Your task to perform on an android device: clear history in the chrome app Image 0: 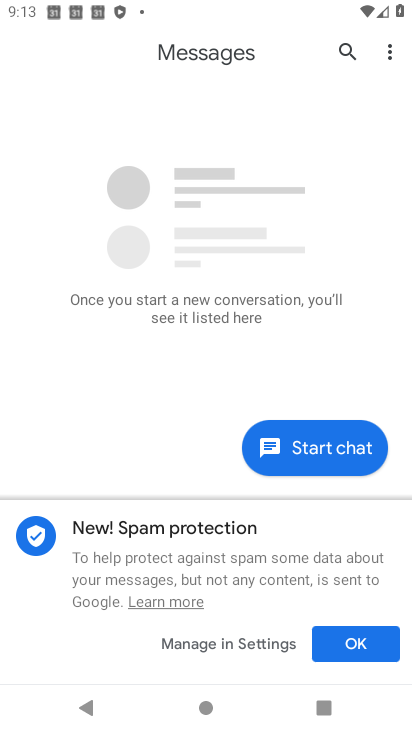
Step 0: press home button
Your task to perform on an android device: clear history in the chrome app Image 1: 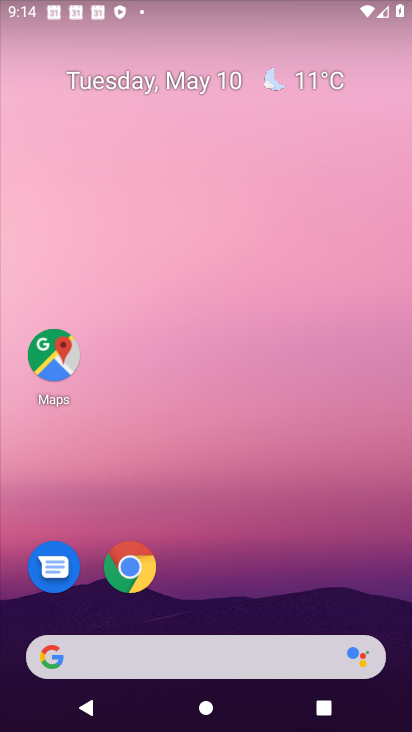
Step 1: click (133, 555)
Your task to perform on an android device: clear history in the chrome app Image 2: 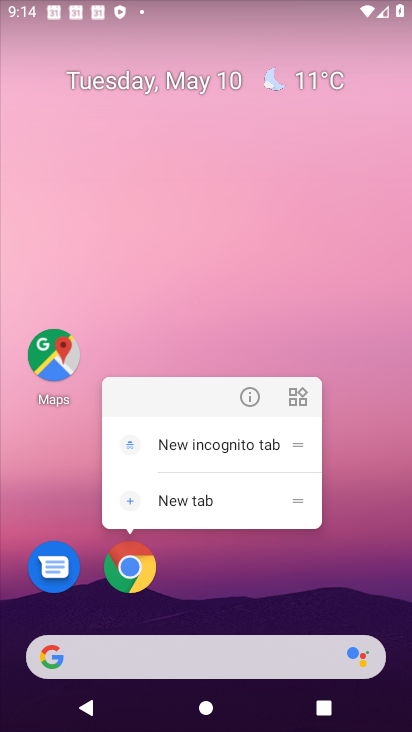
Step 2: click (126, 561)
Your task to perform on an android device: clear history in the chrome app Image 3: 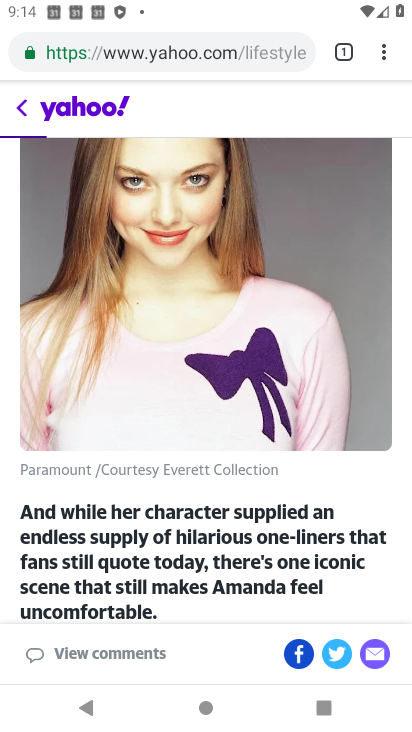
Step 3: click (346, 51)
Your task to perform on an android device: clear history in the chrome app Image 4: 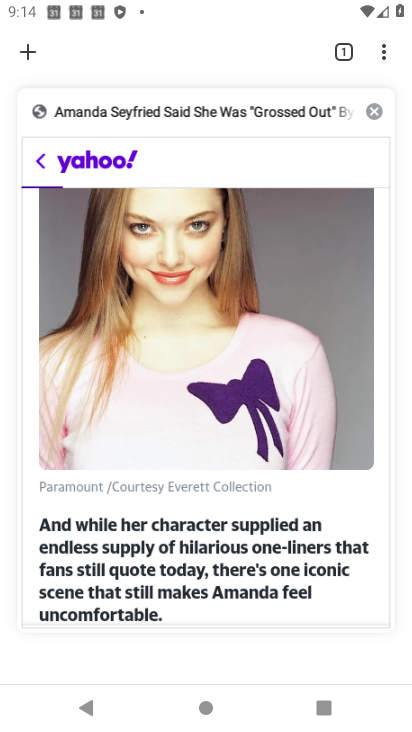
Step 4: click (342, 45)
Your task to perform on an android device: clear history in the chrome app Image 5: 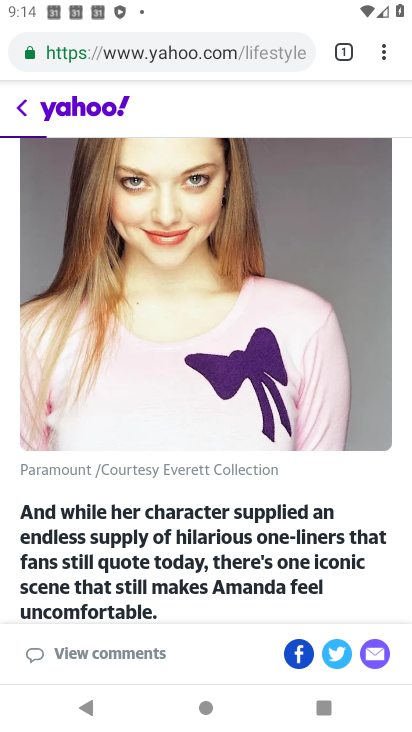
Step 5: click (349, 51)
Your task to perform on an android device: clear history in the chrome app Image 6: 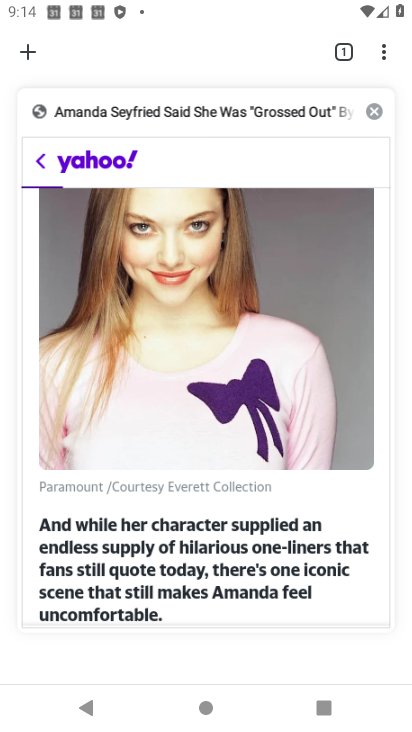
Step 6: click (375, 115)
Your task to perform on an android device: clear history in the chrome app Image 7: 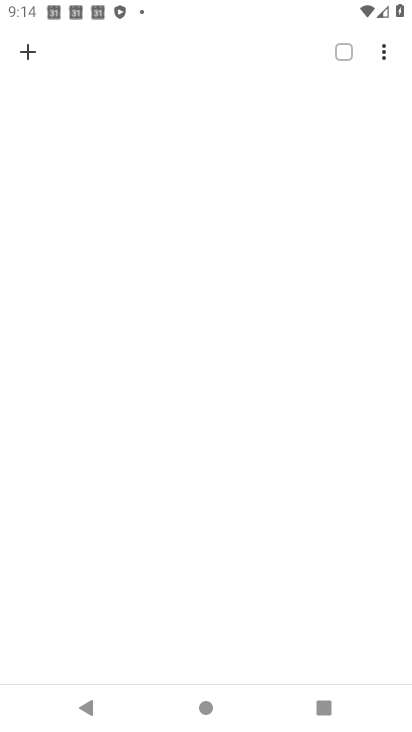
Step 7: click (380, 56)
Your task to perform on an android device: clear history in the chrome app Image 8: 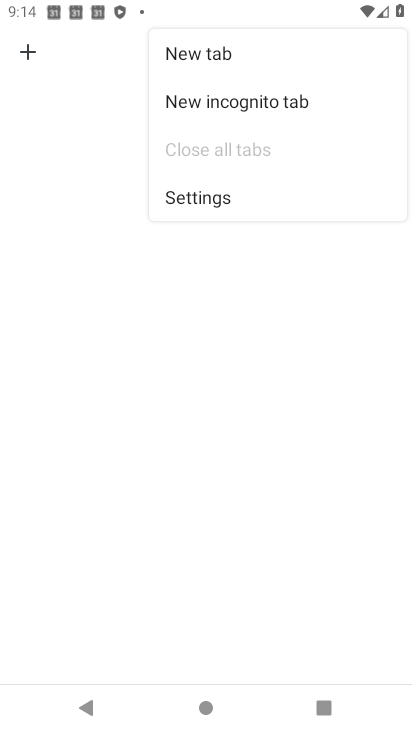
Step 8: click (22, 48)
Your task to perform on an android device: clear history in the chrome app Image 9: 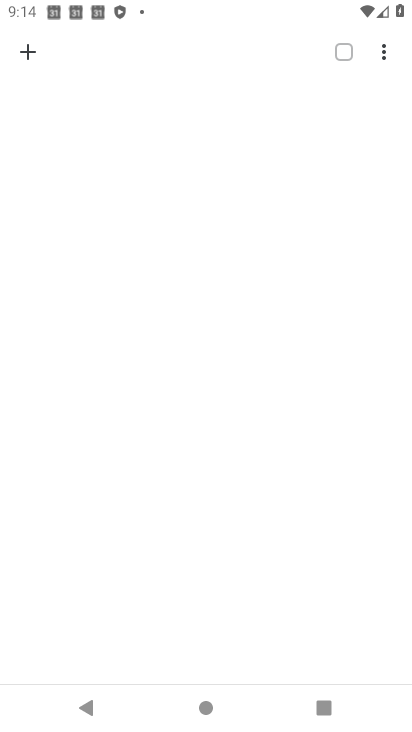
Step 9: click (28, 42)
Your task to perform on an android device: clear history in the chrome app Image 10: 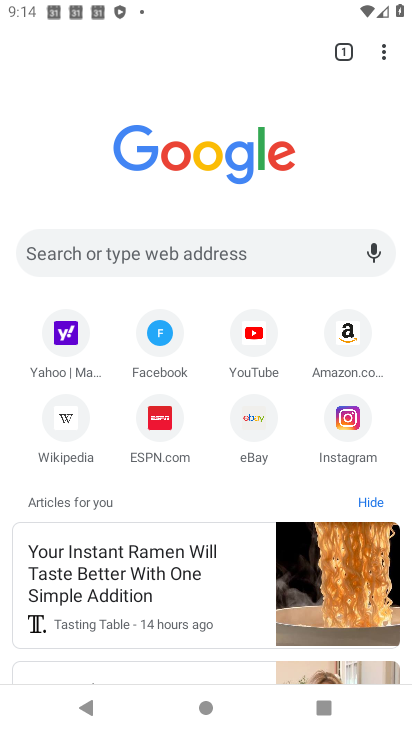
Step 10: click (387, 51)
Your task to perform on an android device: clear history in the chrome app Image 11: 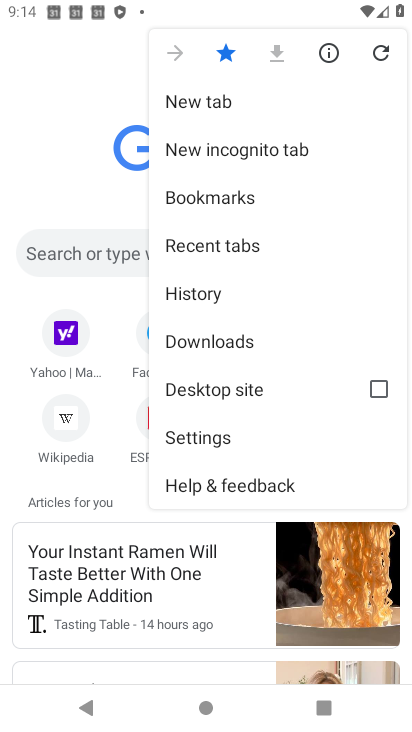
Step 11: click (202, 306)
Your task to perform on an android device: clear history in the chrome app Image 12: 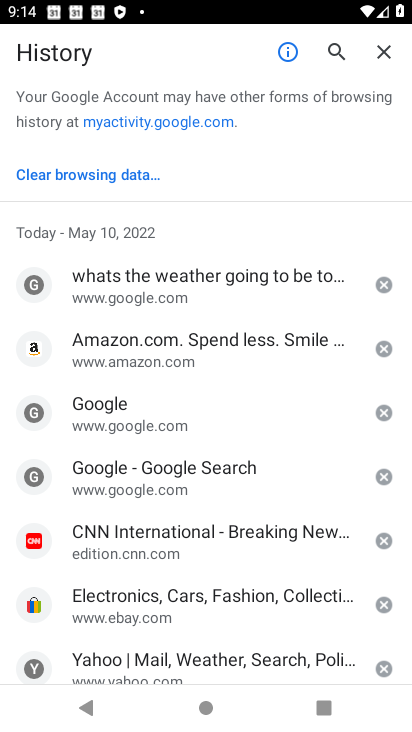
Step 12: click (130, 107)
Your task to perform on an android device: clear history in the chrome app Image 13: 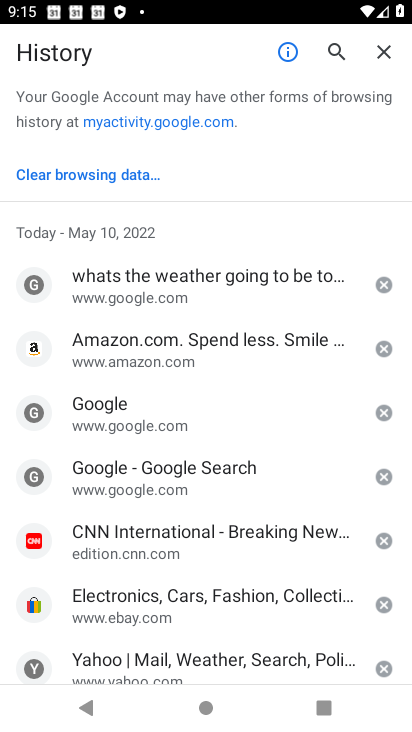
Step 13: click (89, 169)
Your task to perform on an android device: clear history in the chrome app Image 14: 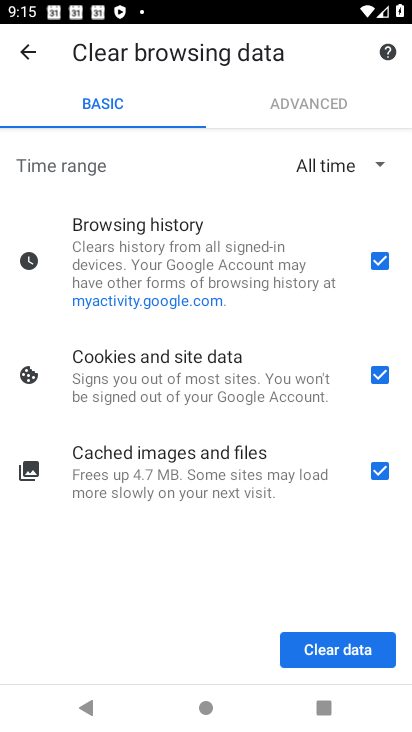
Step 14: click (370, 644)
Your task to perform on an android device: clear history in the chrome app Image 15: 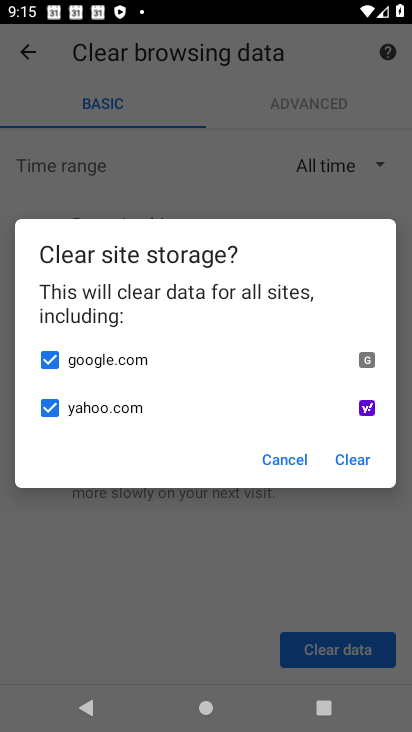
Step 15: click (367, 463)
Your task to perform on an android device: clear history in the chrome app Image 16: 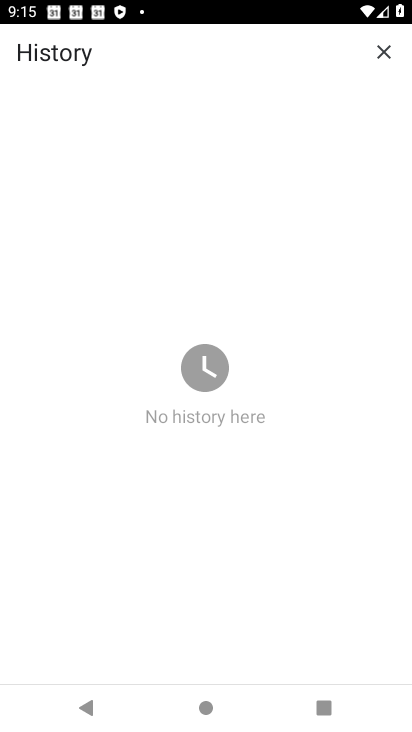
Step 16: task complete